Your task to perform on an android device: Do I have any events this weekend? Image 0: 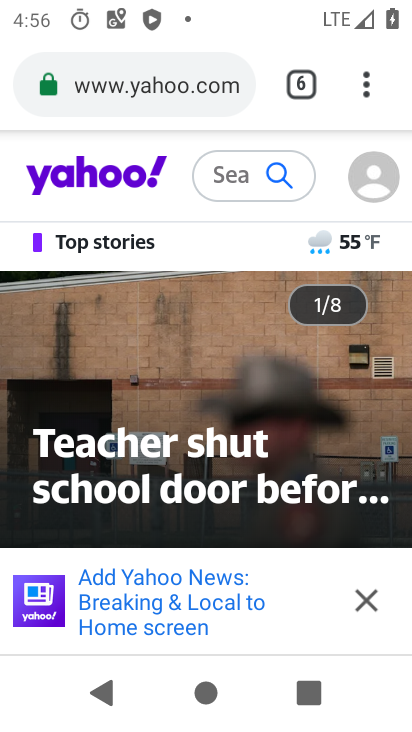
Step 0: press home button
Your task to perform on an android device: Do I have any events this weekend? Image 1: 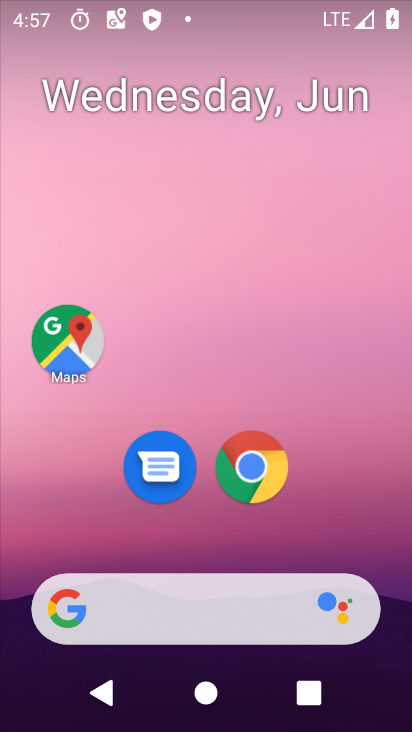
Step 1: click (206, 97)
Your task to perform on an android device: Do I have any events this weekend? Image 2: 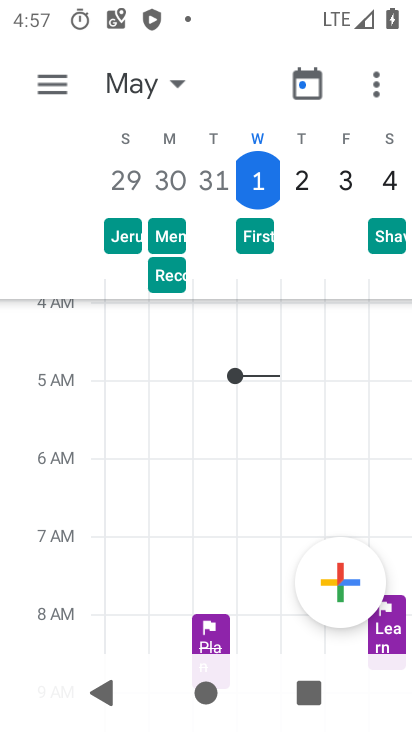
Step 2: task complete